Your task to perform on an android device: Add razer naga to the cart on bestbuy, then select checkout. Image 0: 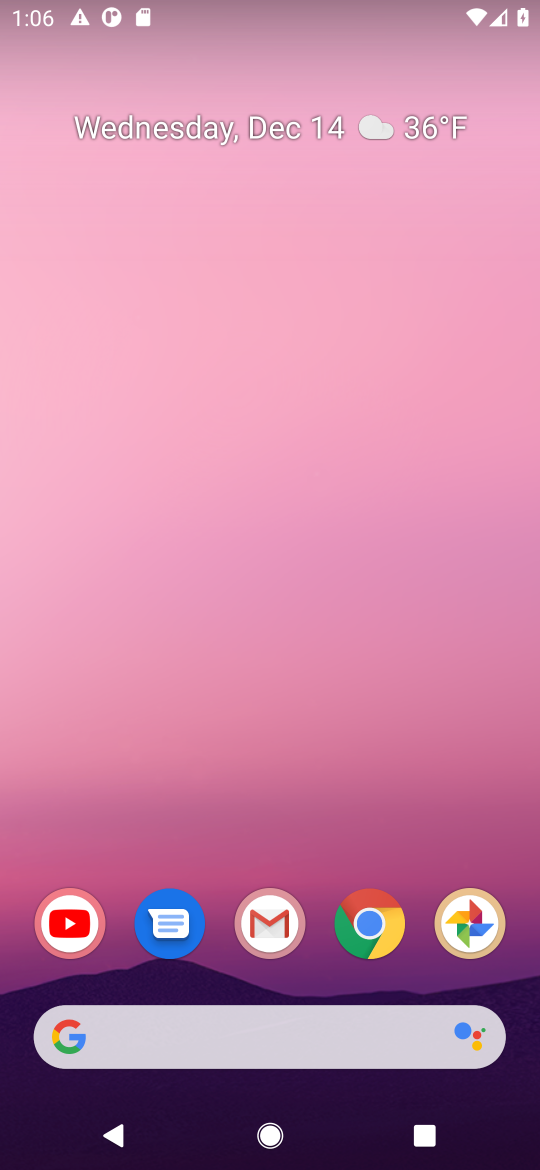
Step 0: click (368, 936)
Your task to perform on an android device: Add razer naga to the cart on bestbuy, then select checkout. Image 1: 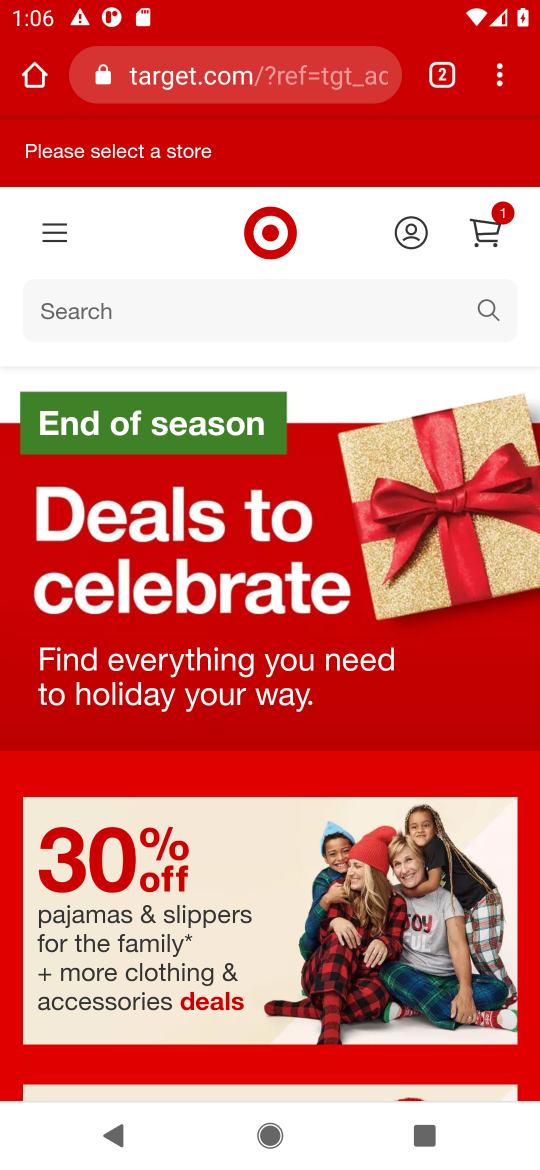
Step 1: click (285, 290)
Your task to perform on an android device: Add razer naga to the cart on bestbuy, then select checkout. Image 2: 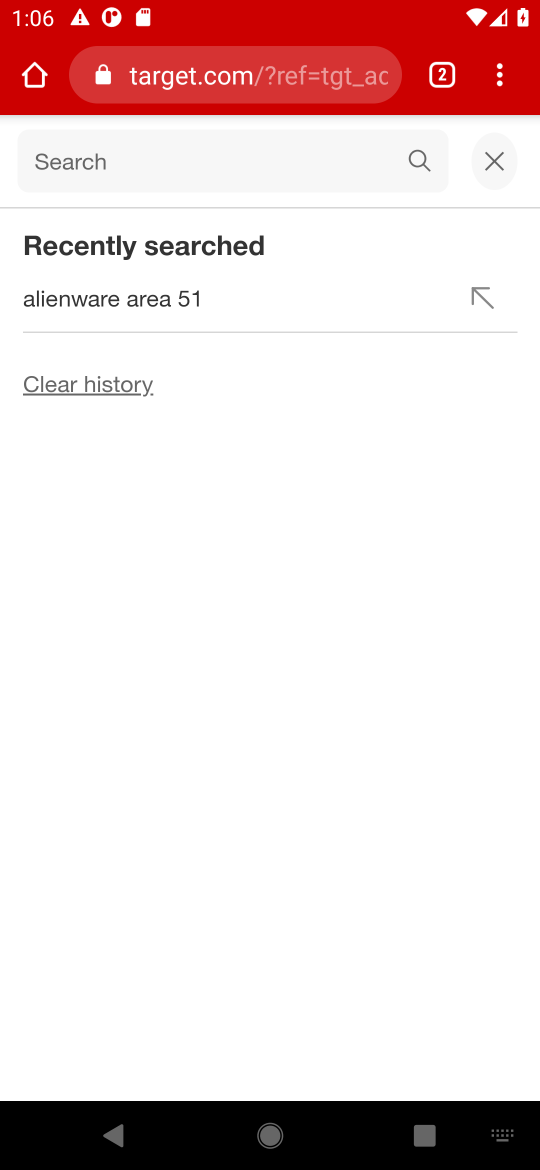
Step 2: click (278, 70)
Your task to perform on an android device: Add razer naga to the cart on bestbuy, then select checkout. Image 3: 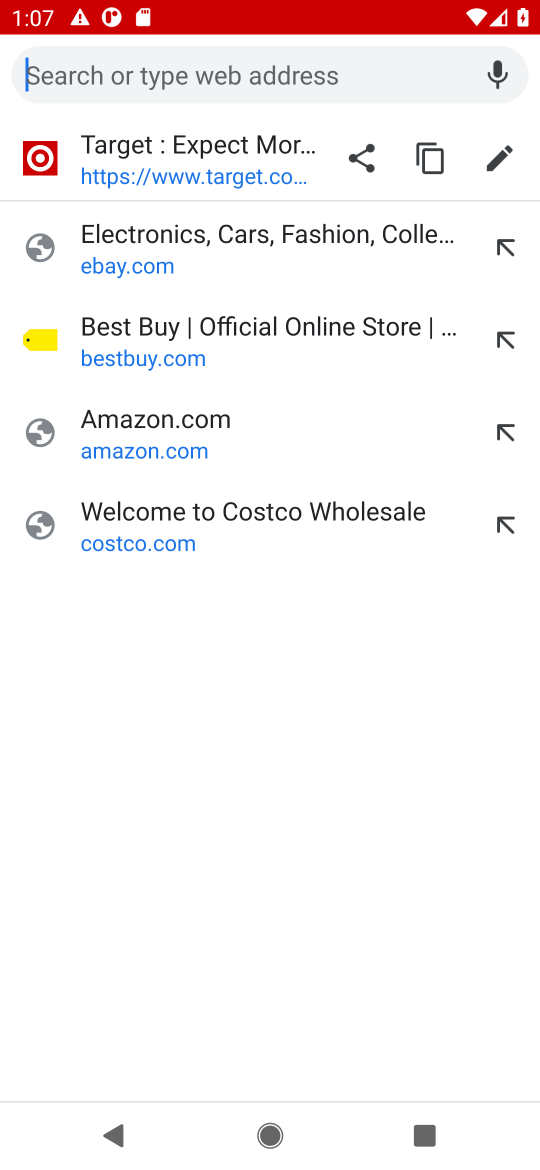
Step 3: click (128, 177)
Your task to perform on an android device: Add razer naga to the cart on bestbuy, then select checkout. Image 4: 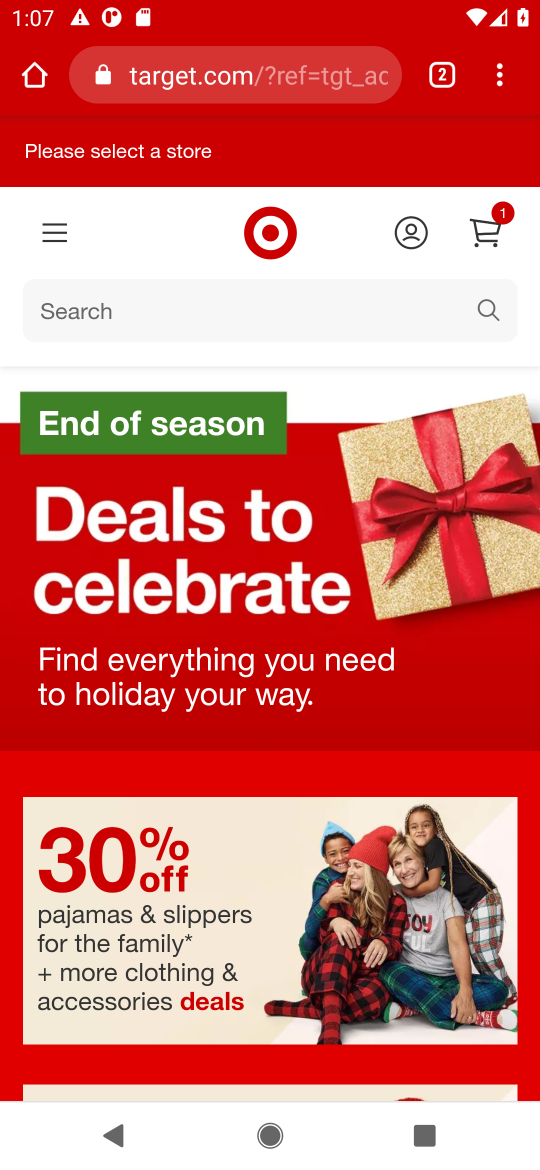
Step 4: task complete